Your task to perform on an android device: Search for a new desk on IKEA Image 0: 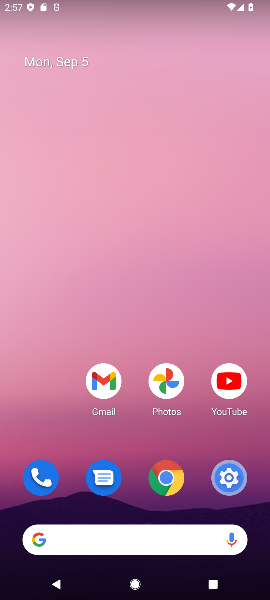
Step 0: drag from (186, 445) to (166, 8)
Your task to perform on an android device: Search for a new desk on IKEA Image 1: 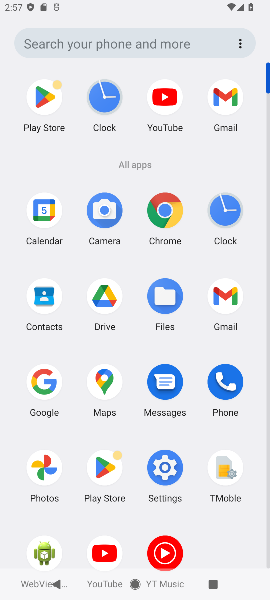
Step 1: click (165, 204)
Your task to perform on an android device: Search for a new desk on IKEA Image 2: 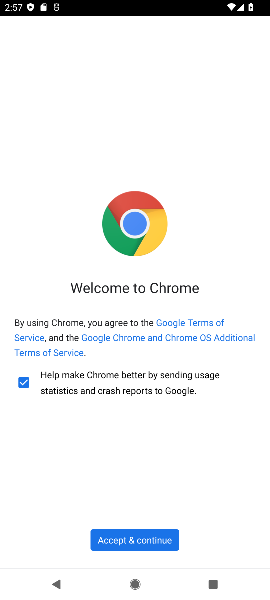
Step 2: click (159, 535)
Your task to perform on an android device: Search for a new desk on IKEA Image 3: 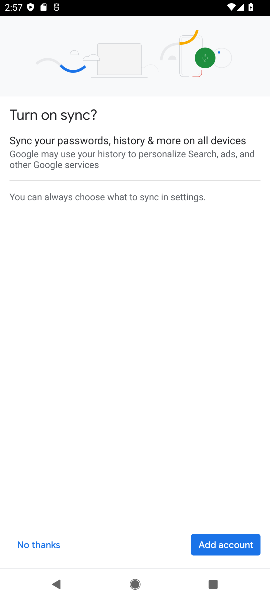
Step 3: click (242, 548)
Your task to perform on an android device: Search for a new desk on IKEA Image 4: 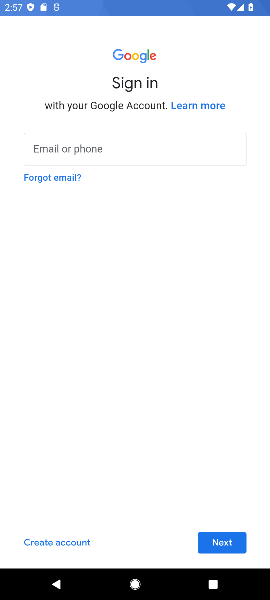
Step 4: click (227, 541)
Your task to perform on an android device: Search for a new desk on IKEA Image 5: 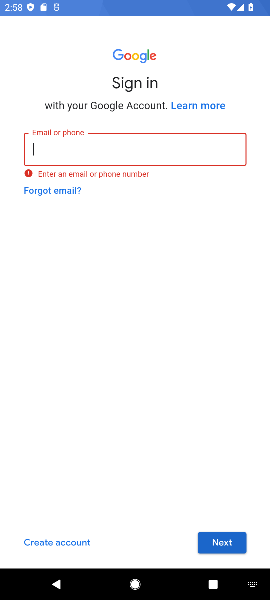
Step 5: click (238, 548)
Your task to perform on an android device: Search for a new desk on IKEA Image 6: 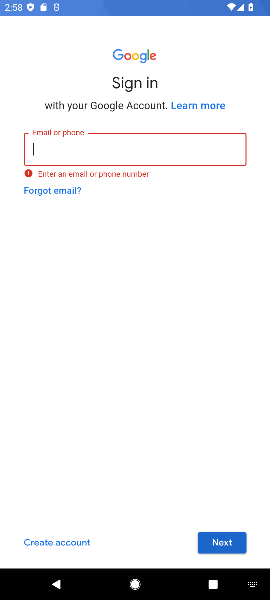
Step 6: press home button
Your task to perform on an android device: Search for a new desk on IKEA Image 7: 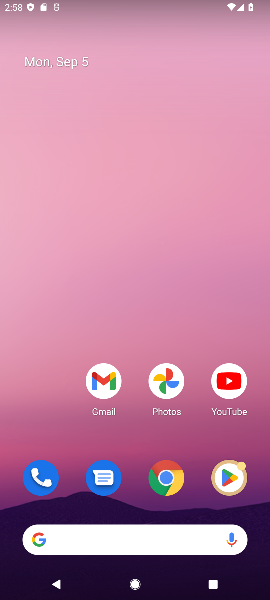
Step 7: click (156, 467)
Your task to perform on an android device: Search for a new desk on IKEA Image 8: 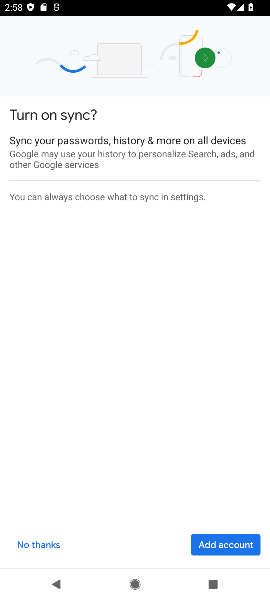
Step 8: click (216, 550)
Your task to perform on an android device: Search for a new desk on IKEA Image 9: 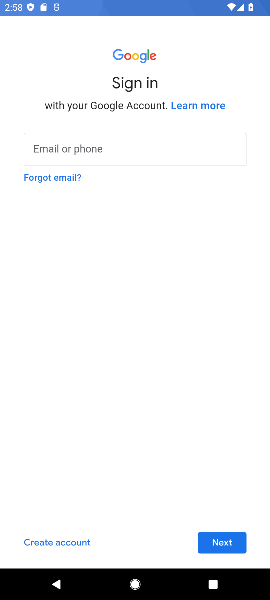
Step 9: task complete